Your task to perform on an android device: See recent photos Image 0: 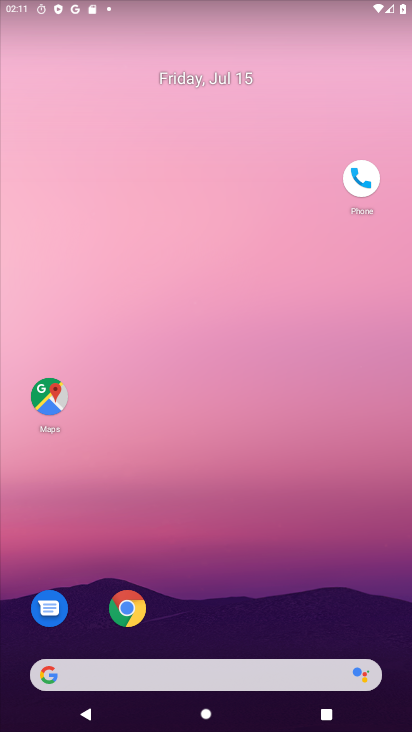
Step 0: drag from (212, 572) to (243, 101)
Your task to perform on an android device: See recent photos Image 1: 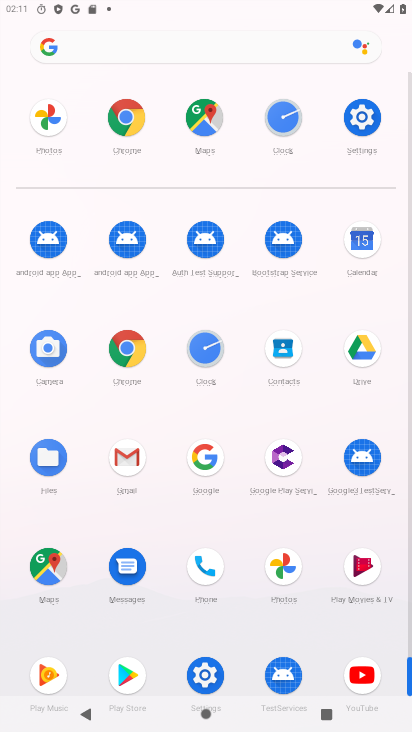
Step 1: drag from (247, 612) to (232, 416)
Your task to perform on an android device: See recent photos Image 2: 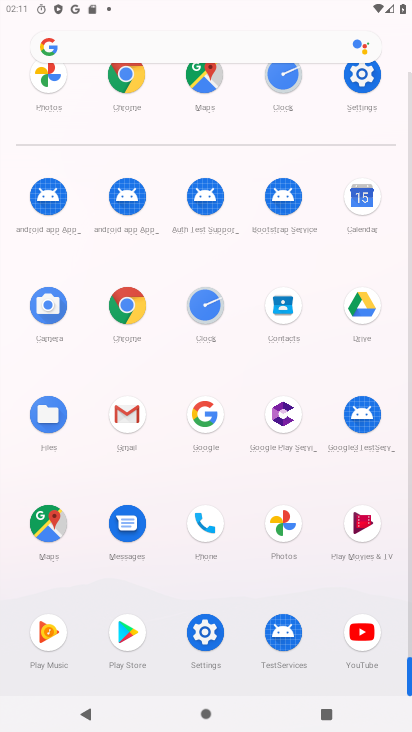
Step 2: drag from (260, 582) to (256, 331)
Your task to perform on an android device: See recent photos Image 3: 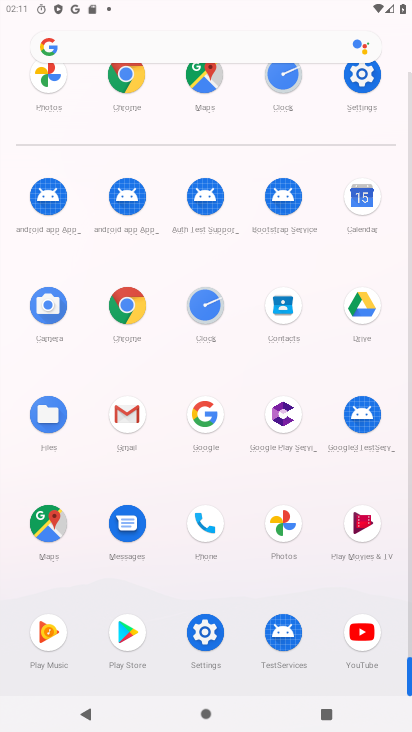
Step 3: drag from (243, 543) to (208, 244)
Your task to perform on an android device: See recent photos Image 4: 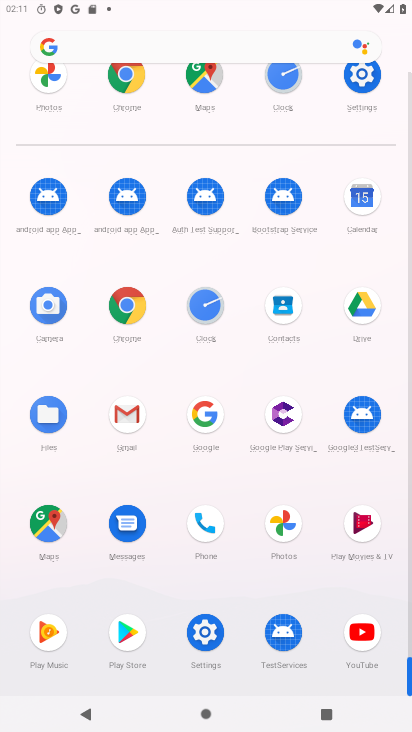
Step 4: drag from (235, 570) to (232, 193)
Your task to perform on an android device: See recent photos Image 5: 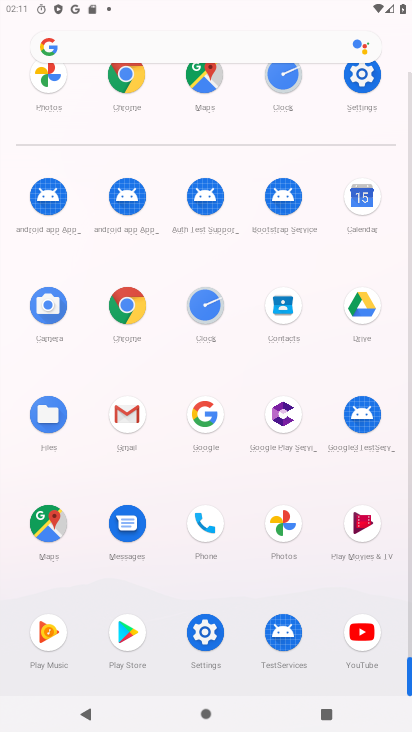
Step 5: click (279, 515)
Your task to perform on an android device: See recent photos Image 6: 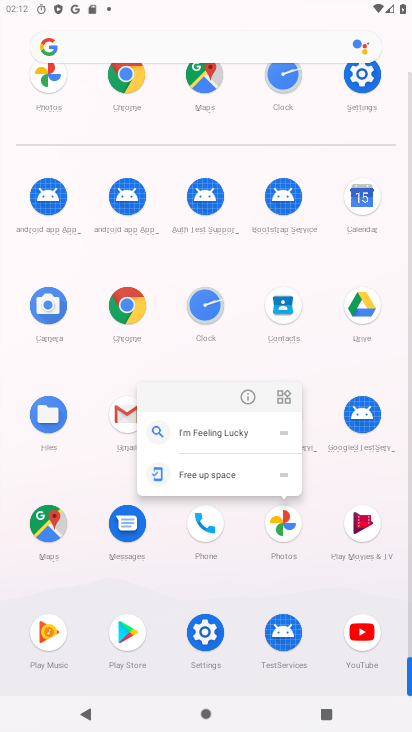
Step 6: click (237, 394)
Your task to perform on an android device: See recent photos Image 7: 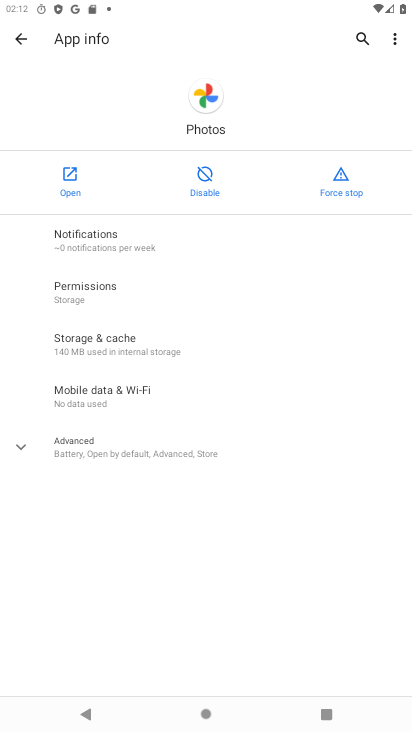
Step 7: click (70, 172)
Your task to perform on an android device: See recent photos Image 8: 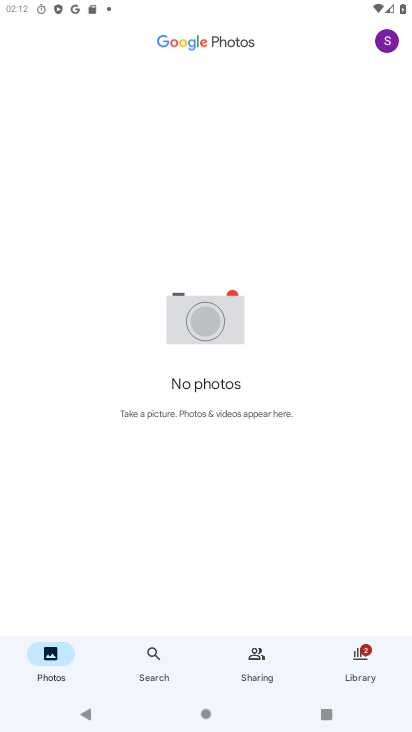
Step 8: drag from (211, 576) to (213, 416)
Your task to perform on an android device: See recent photos Image 9: 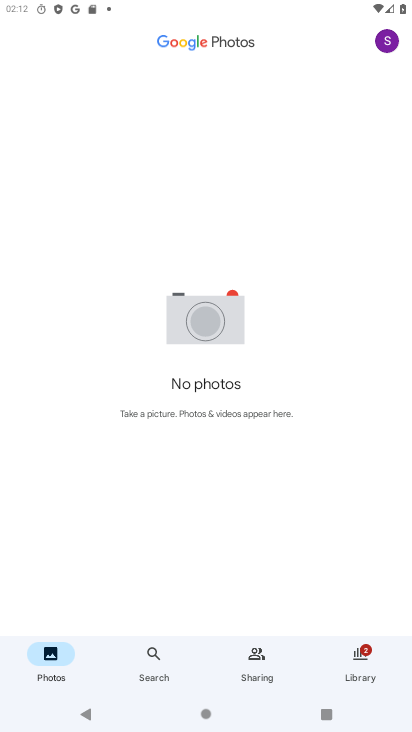
Step 9: drag from (239, 494) to (239, 361)
Your task to perform on an android device: See recent photos Image 10: 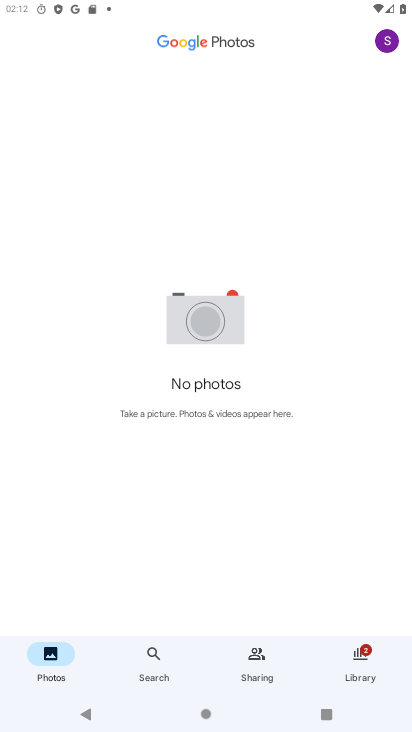
Step 10: click (37, 649)
Your task to perform on an android device: See recent photos Image 11: 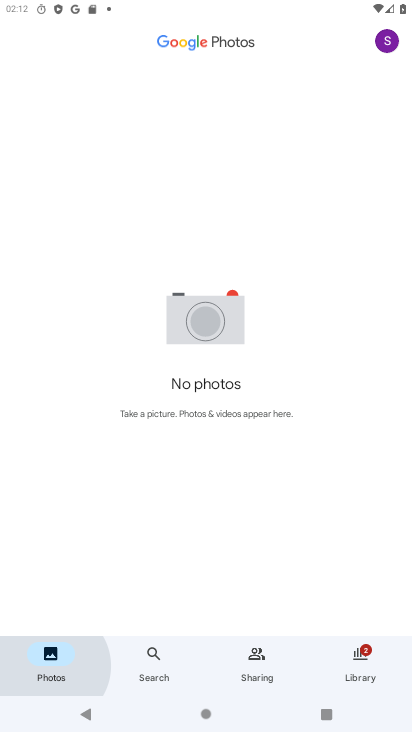
Step 11: task complete